Your task to perform on an android device: toggle improve location accuracy Image 0: 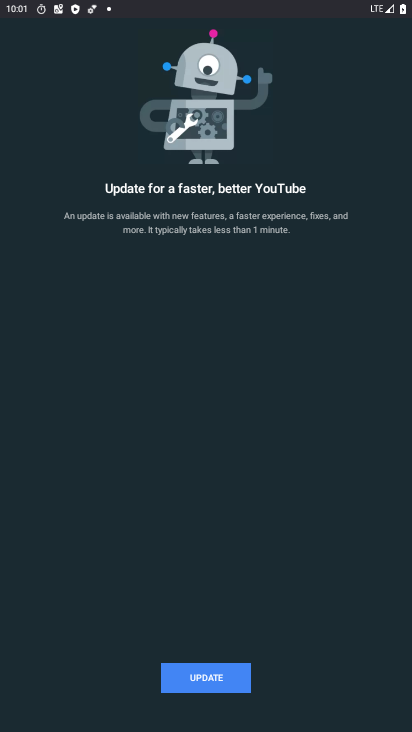
Step 0: press home button
Your task to perform on an android device: toggle improve location accuracy Image 1: 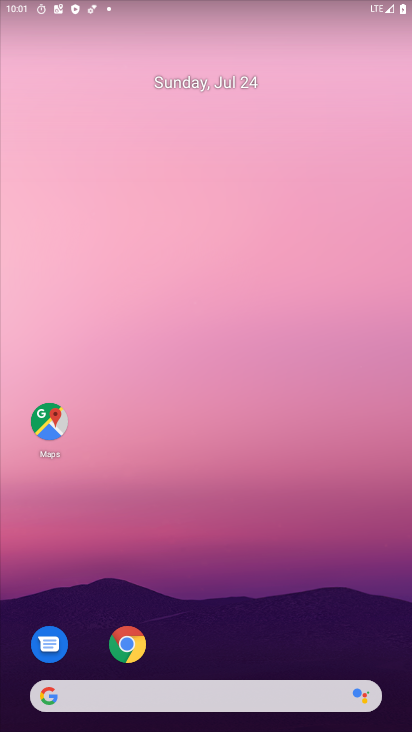
Step 1: drag from (163, 608) to (218, 226)
Your task to perform on an android device: toggle improve location accuracy Image 2: 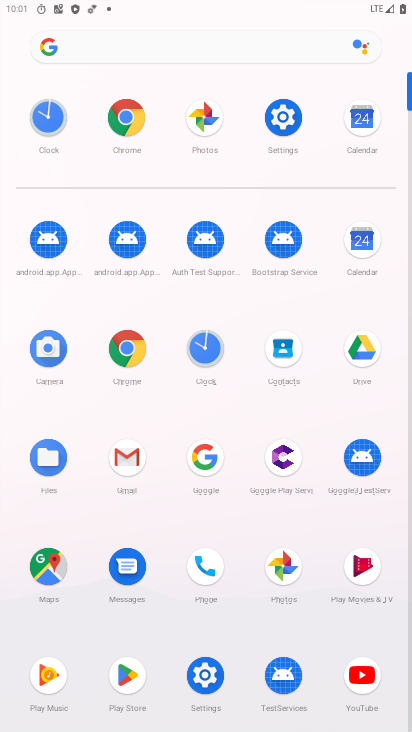
Step 2: click (282, 120)
Your task to perform on an android device: toggle improve location accuracy Image 3: 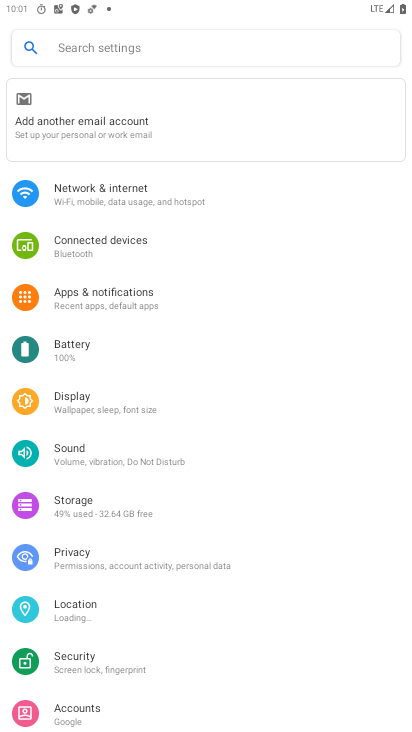
Step 3: click (81, 613)
Your task to perform on an android device: toggle improve location accuracy Image 4: 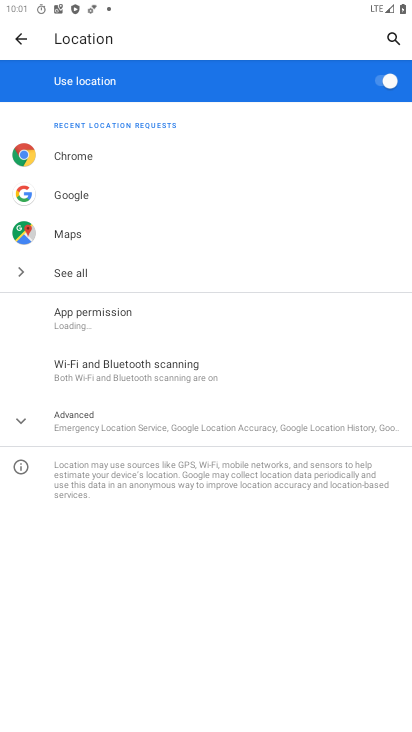
Step 4: click (102, 418)
Your task to perform on an android device: toggle improve location accuracy Image 5: 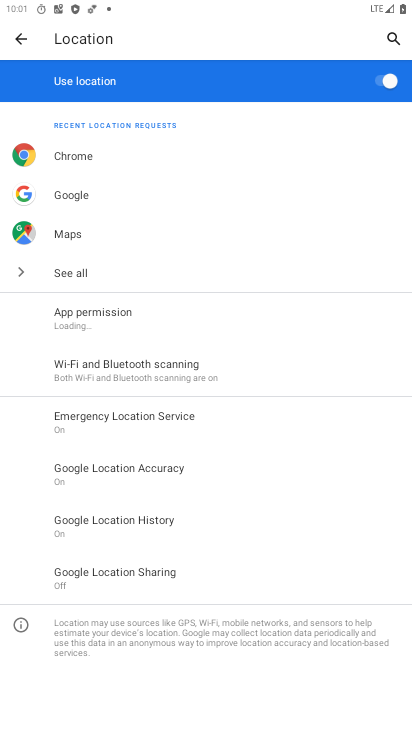
Step 5: click (141, 470)
Your task to perform on an android device: toggle improve location accuracy Image 6: 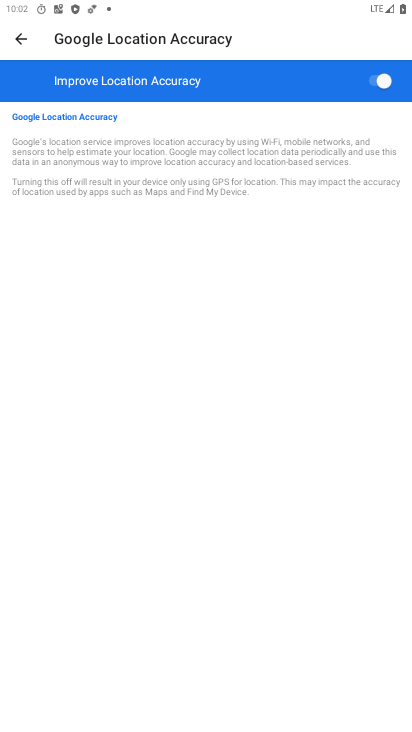
Step 6: click (374, 83)
Your task to perform on an android device: toggle improve location accuracy Image 7: 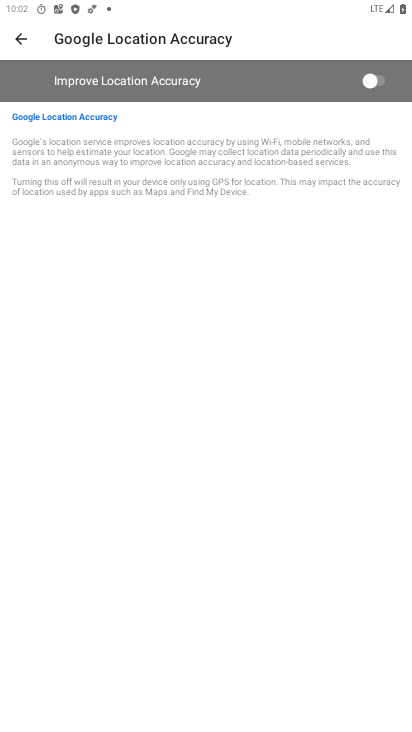
Step 7: task complete